Your task to perform on an android device: Set the phone to "Do not disturb". Image 0: 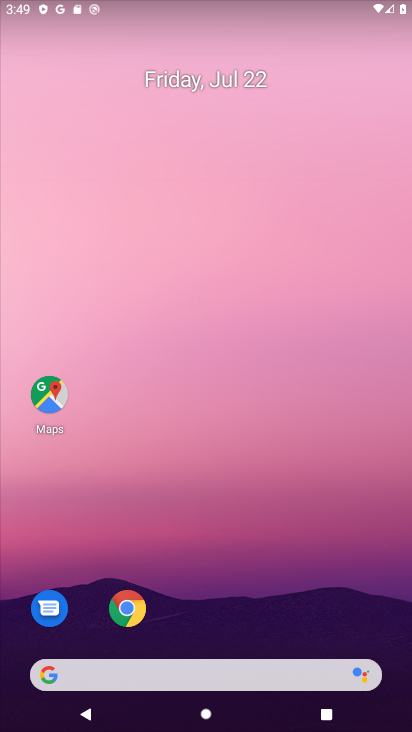
Step 0: drag from (248, 626) to (277, 203)
Your task to perform on an android device: Set the phone to "Do not disturb". Image 1: 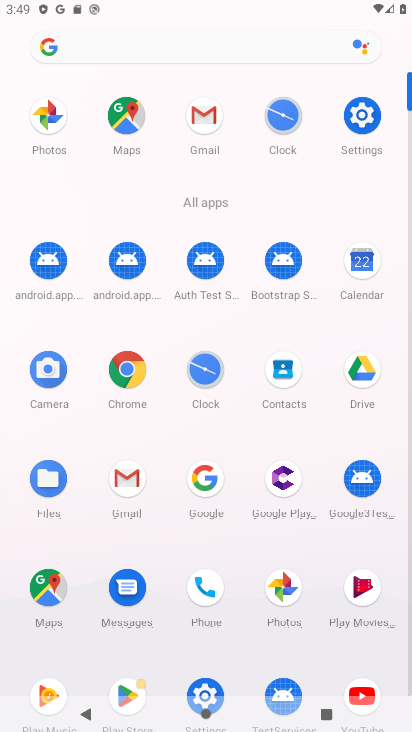
Step 1: task complete